Your task to perform on an android device: Open eBay Image 0: 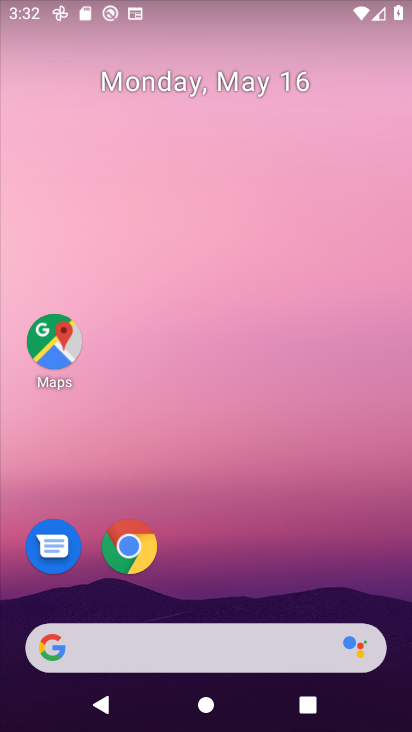
Step 0: drag from (339, 570) to (347, 129)
Your task to perform on an android device: Open eBay Image 1: 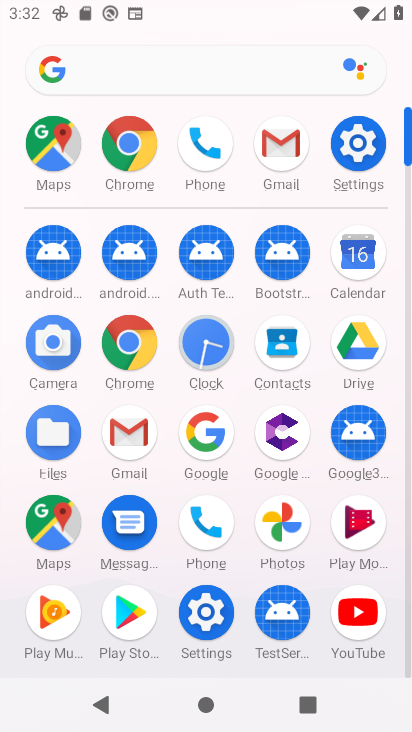
Step 1: click (128, 339)
Your task to perform on an android device: Open eBay Image 2: 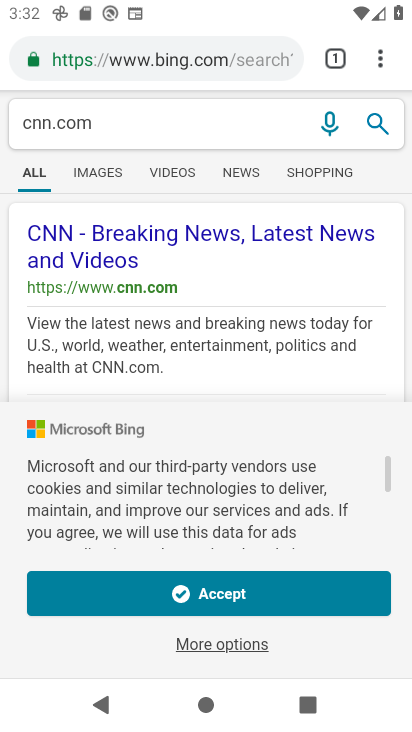
Step 2: click (187, 65)
Your task to perform on an android device: Open eBay Image 3: 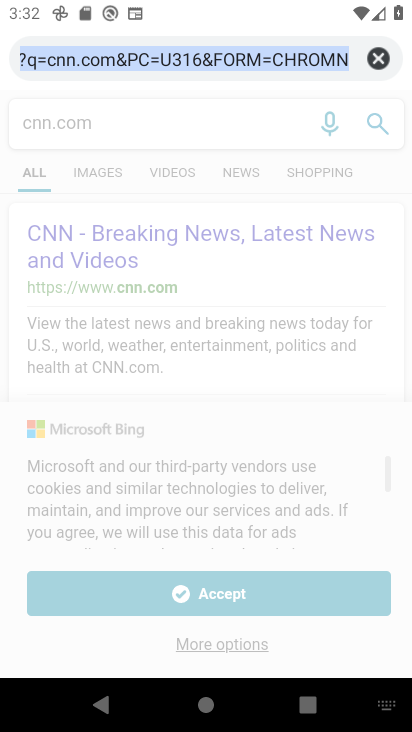
Step 3: click (377, 55)
Your task to perform on an android device: Open eBay Image 4: 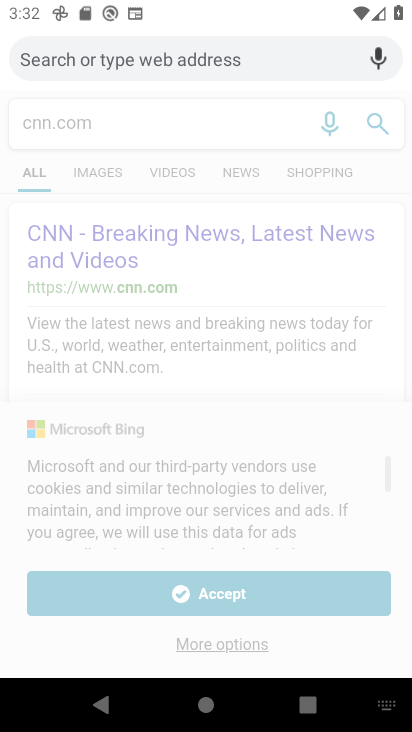
Step 4: click (239, 51)
Your task to perform on an android device: Open eBay Image 5: 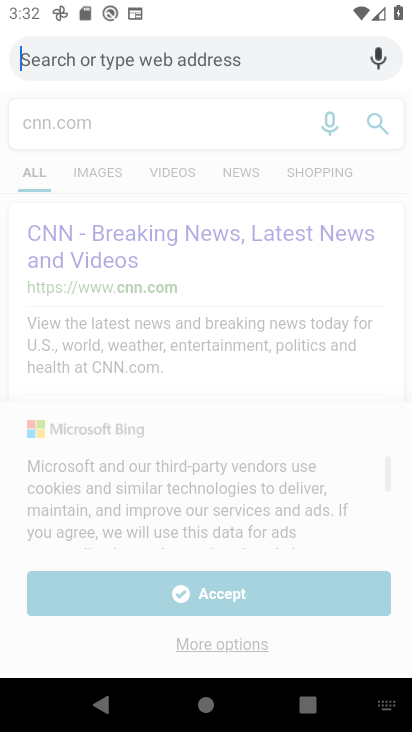
Step 5: type "ebay"
Your task to perform on an android device: Open eBay Image 6: 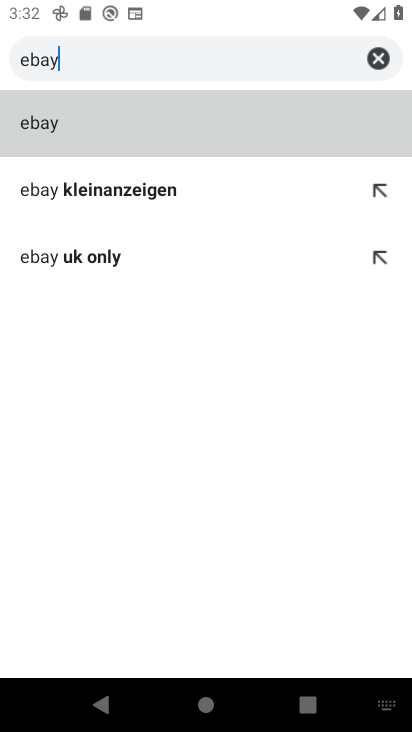
Step 6: click (165, 130)
Your task to perform on an android device: Open eBay Image 7: 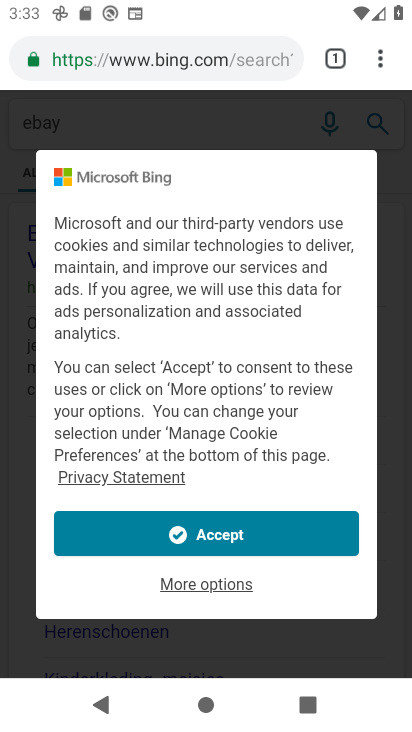
Step 7: task complete